Your task to perform on an android device: Go to Yahoo.com Image 0: 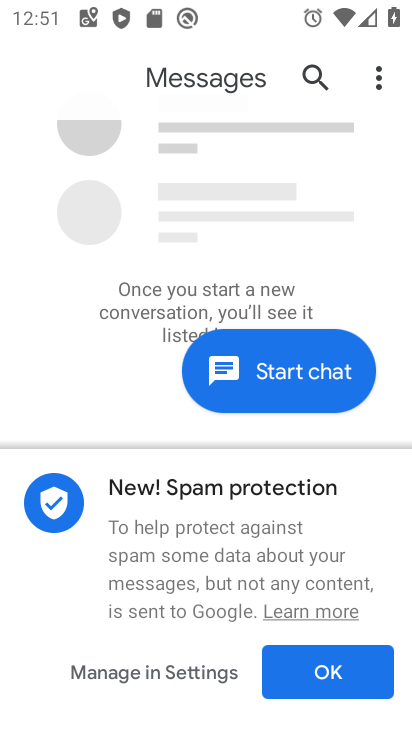
Step 0: press home button
Your task to perform on an android device: Go to Yahoo.com Image 1: 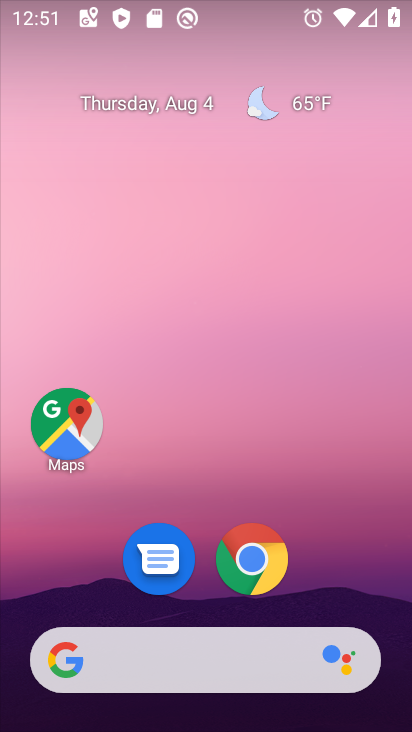
Step 1: click (251, 561)
Your task to perform on an android device: Go to Yahoo.com Image 2: 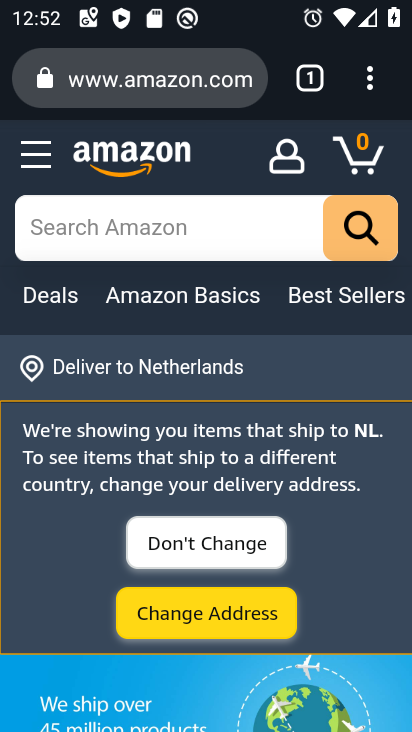
Step 2: click (180, 86)
Your task to perform on an android device: Go to Yahoo.com Image 3: 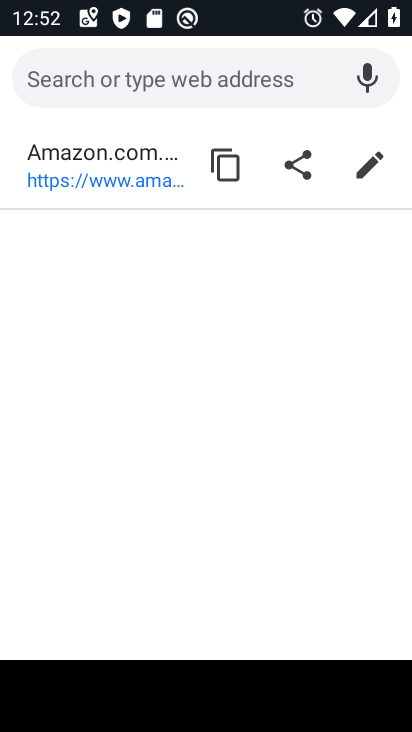
Step 3: type "Yahoo.com"
Your task to perform on an android device: Go to Yahoo.com Image 4: 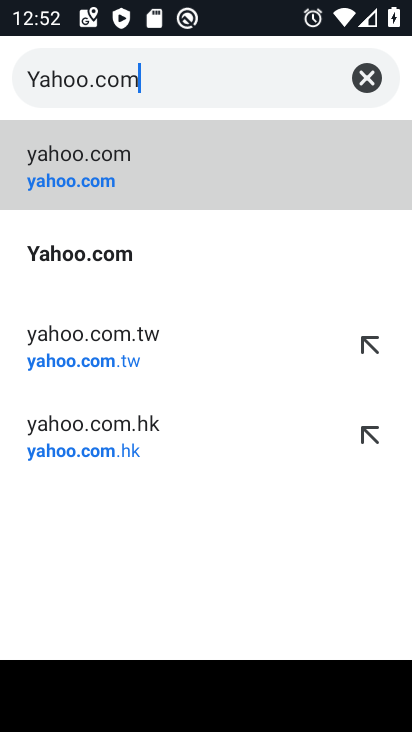
Step 4: click (86, 252)
Your task to perform on an android device: Go to Yahoo.com Image 5: 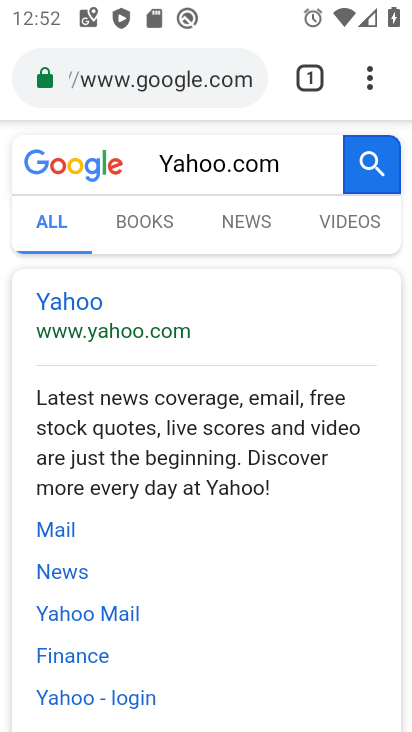
Step 5: click (90, 321)
Your task to perform on an android device: Go to Yahoo.com Image 6: 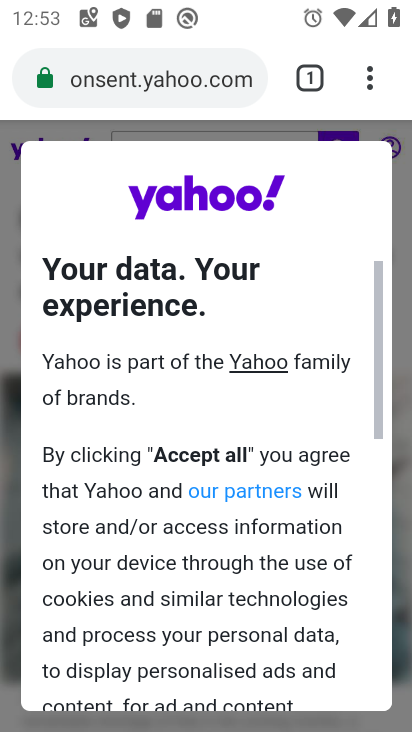
Step 6: drag from (153, 569) to (226, 438)
Your task to perform on an android device: Go to Yahoo.com Image 7: 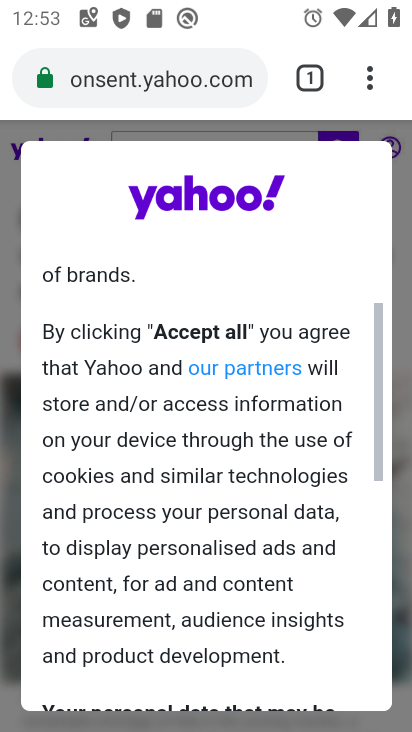
Step 7: drag from (186, 623) to (277, 497)
Your task to perform on an android device: Go to Yahoo.com Image 8: 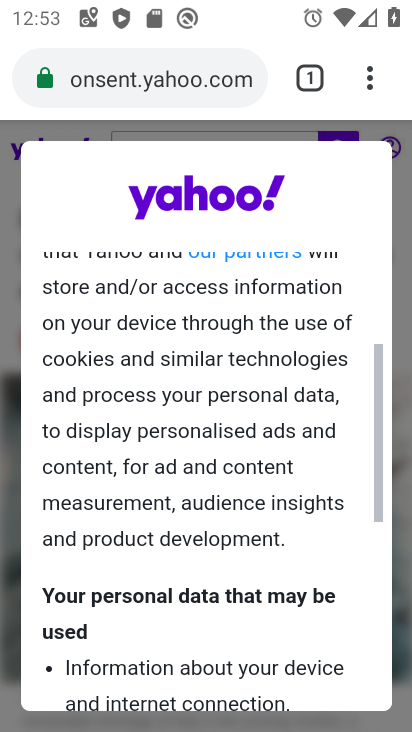
Step 8: drag from (251, 639) to (309, 462)
Your task to perform on an android device: Go to Yahoo.com Image 9: 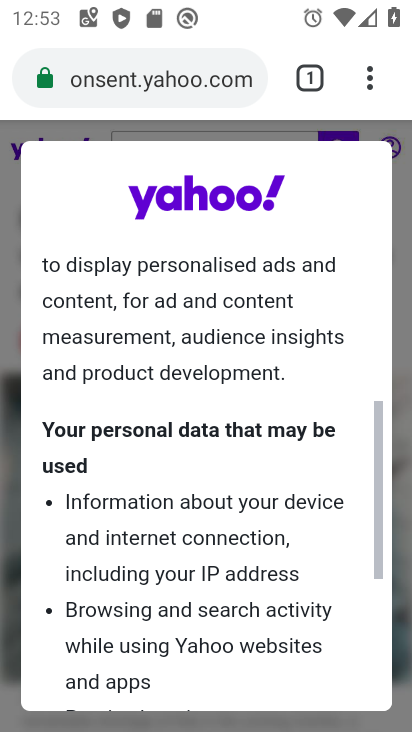
Step 9: drag from (226, 670) to (309, 512)
Your task to perform on an android device: Go to Yahoo.com Image 10: 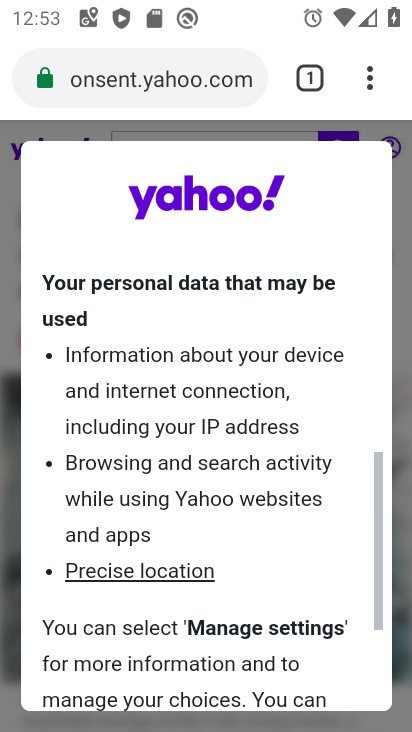
Step 10: drag from (213, 670) to (320, 407)
Your task to perform on an android device: Go to Yahoo.com Image 11: 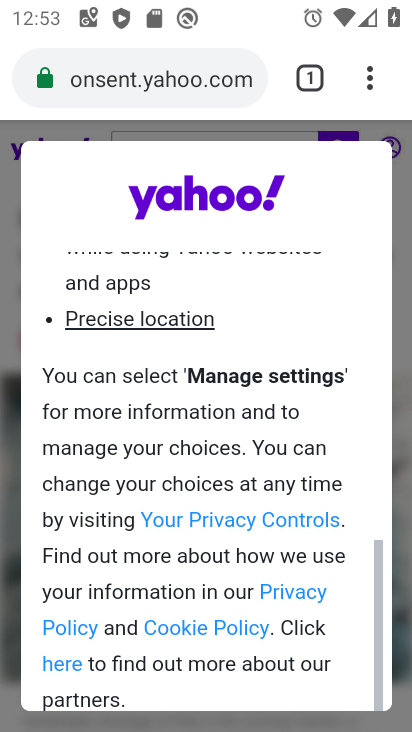
Step 11: drag from (199, 563) to (266, 342)
Your task to perform on an android device: Go to Yahoo.com Image 12: 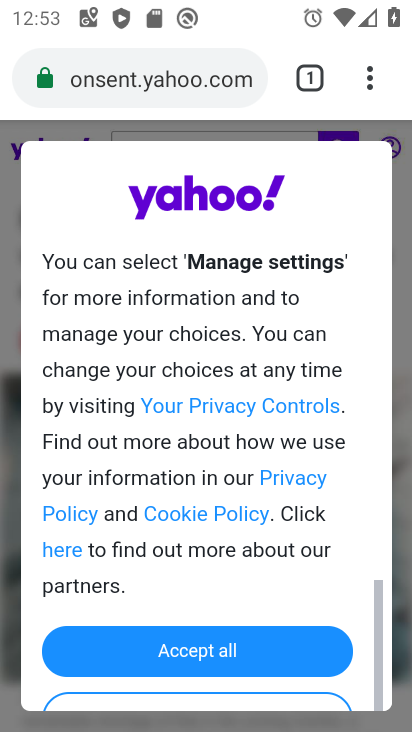
Step 12: click (207, 649)
Your task to perform on an android device: Go to Yahoo.com Image 13: 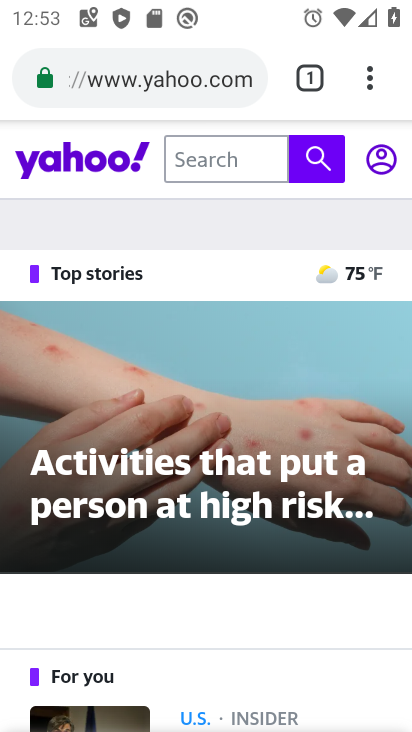
Step 13: task complete